Your task to perform on an android device: change alarm snooze length Image 0: 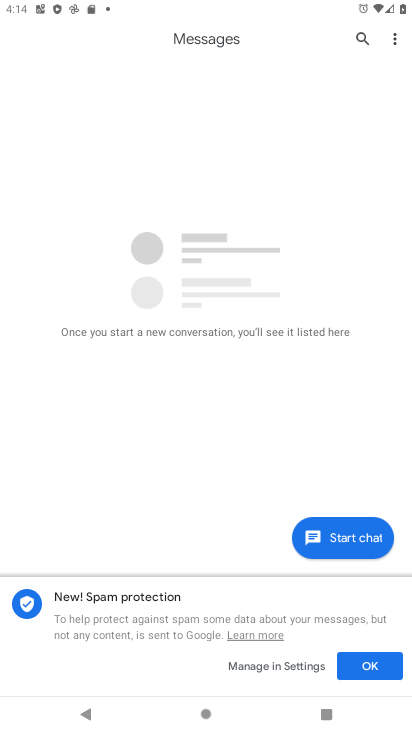
Step 0: click (303, 597)
Your task to perform on an android device: change alarm snooze length Image 1: 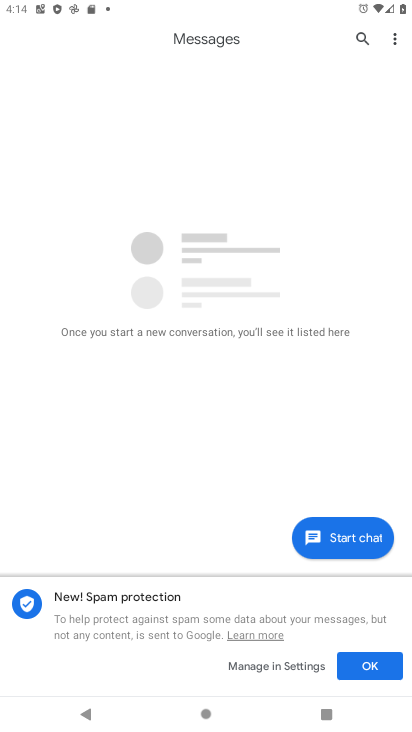
Step 1: press home button
Your task to perform on an android device: change alarm snooze length Image 2: 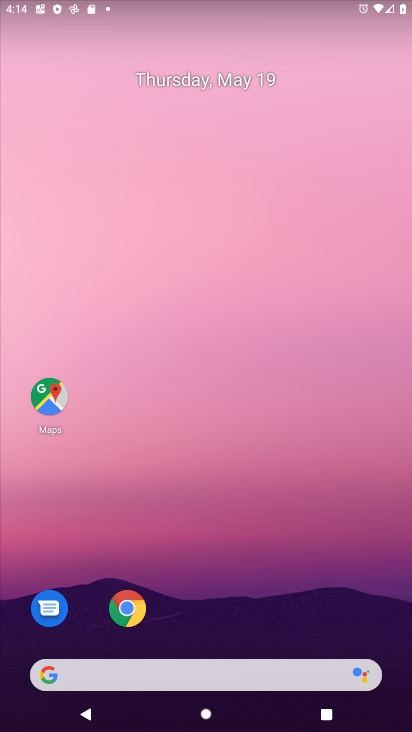
Step 2: drag from (215, 634) to (254, 58)
Your task to perform on an android device: change alarm snooze length Image 3: 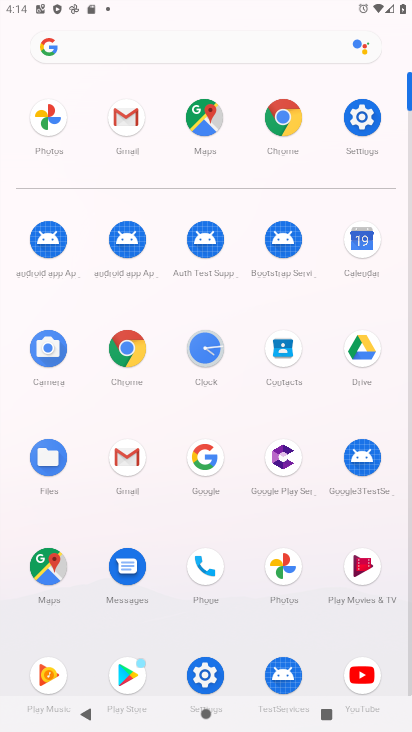
Step 3: click (218, 363)
Your task to perform on an android device: change alarm snooze length Image 4: 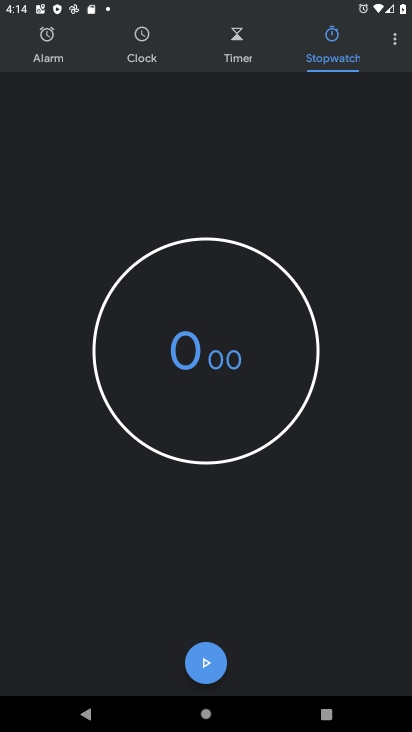
Step 4: click (394, 48)
Your task to perform on an android device: change alarm snooze length Image 5: 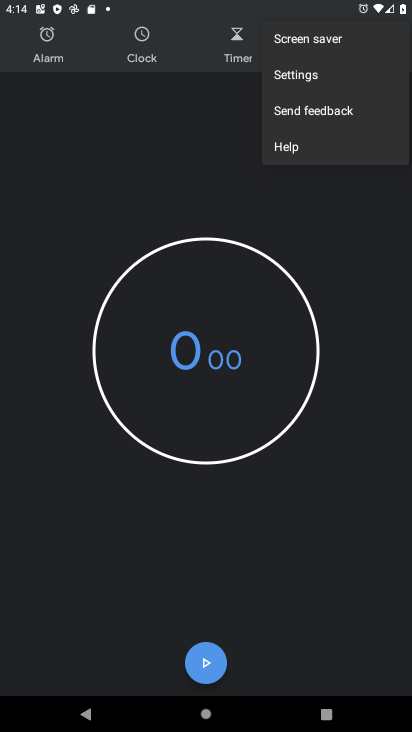
Step 5: click (354, 78)
Your task to perform on an android device: change alarm snooze length Image 6: 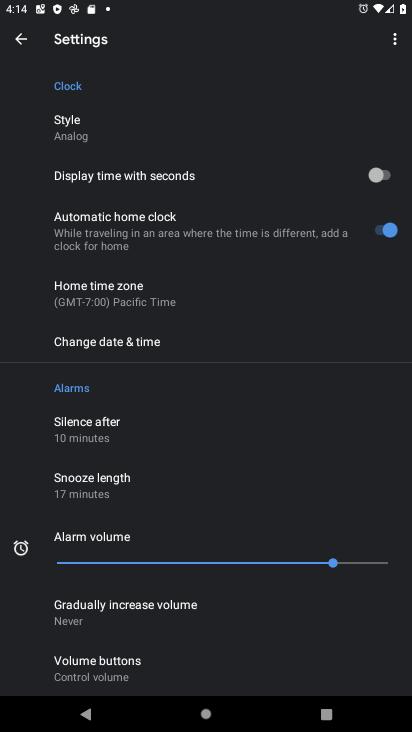
Step 6: click (150, 485)
Your task to perform on an android device: change alarm snooze length Image 7: 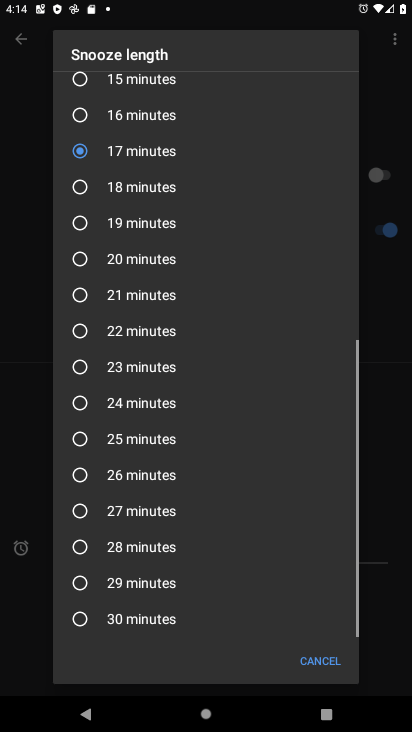
Step 7: click (203, 331)
Your task to perform on an android device: change alarm snooze length Image 8: 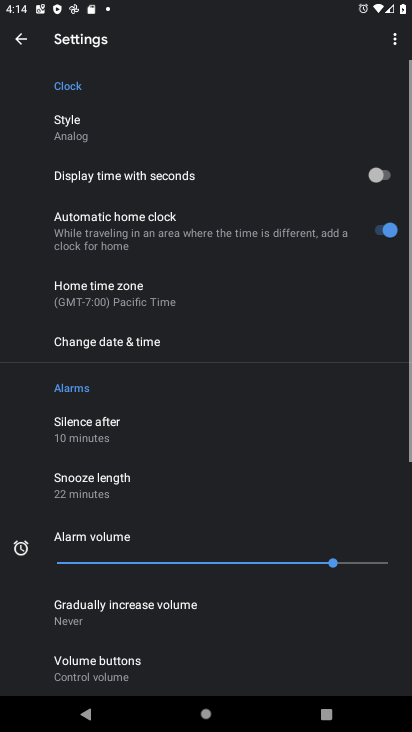
Step 8: task complete